Your task to perform on an android device: turn smart compose on in the gmail app Image 0: 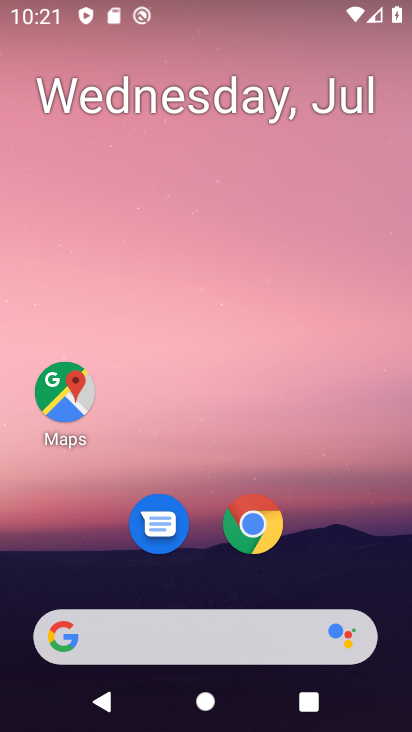
Step 0: drag from (175, 645) to (298, 66)
Your task to perform on an android device: turn smart compose on in the gmail app Image 1: 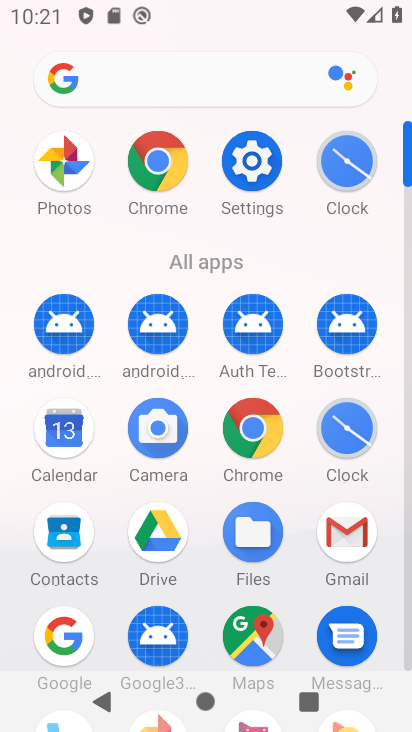
Step 1: click (346, 534)
Your task to perform on an android device: turn smart compose on in the gmail app Image 2: 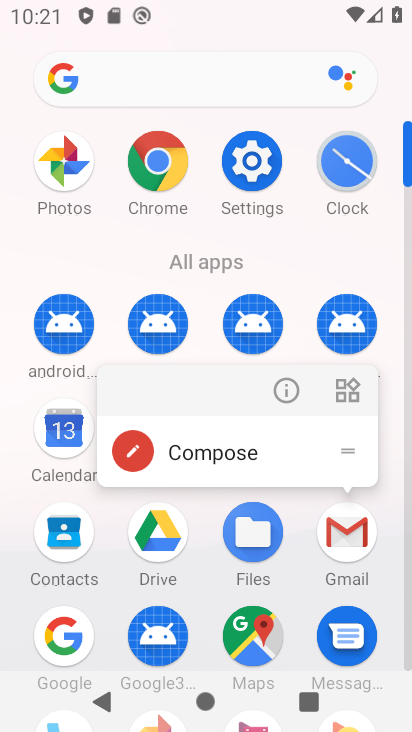
Step 2: click (346, 532)
Your task to perform on an android device: turn smart compose on in the gmail app Image 3: 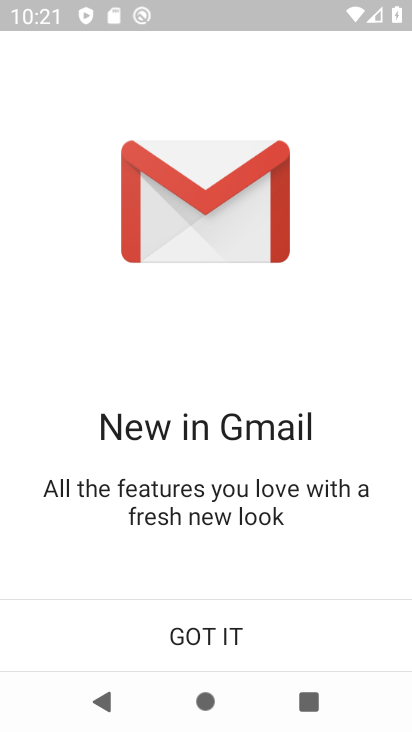
Step 3: click (224, 643)
Your task to perform on an android device: turn smart compose on in the gmail app Image 4: 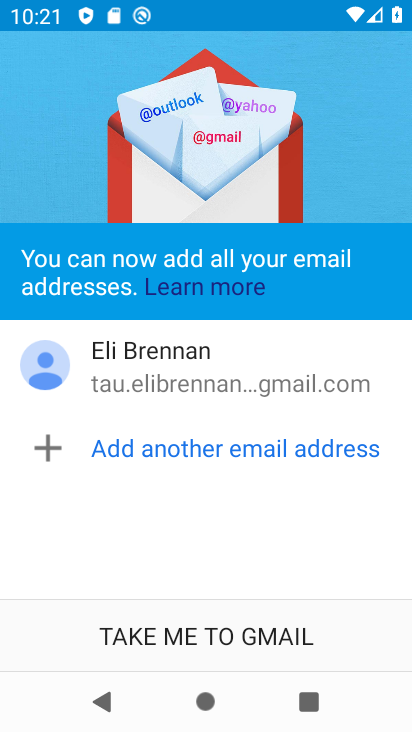
Step 4: click (224, 642)
Your task to perform on an android device: turn smart compose on in the gmail app Image 5: 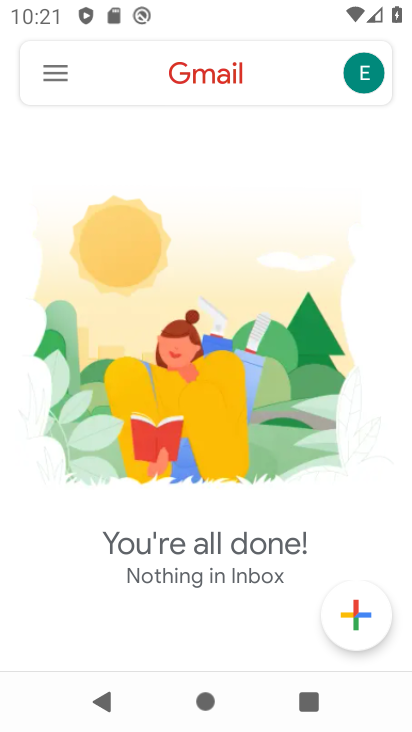
Step 5: click (56, 72)
Your task to perform on an android device: turn smart compose on in the gmail app Image 6: 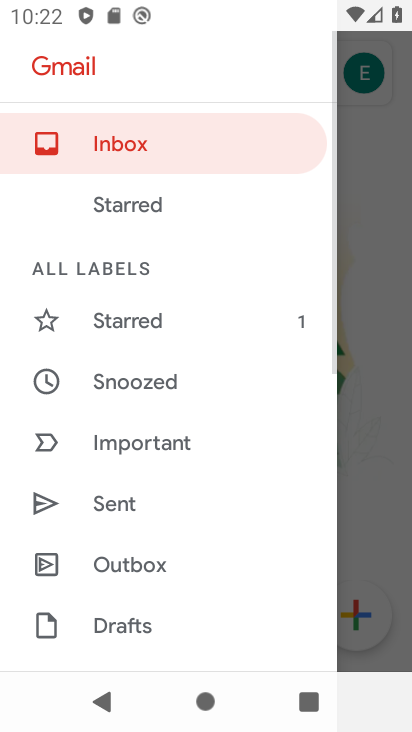
Step 6: drag from (168, 604) to (227, 170)
Your task to perform on an android device: turn smart compose on in the gmail app Image 7: 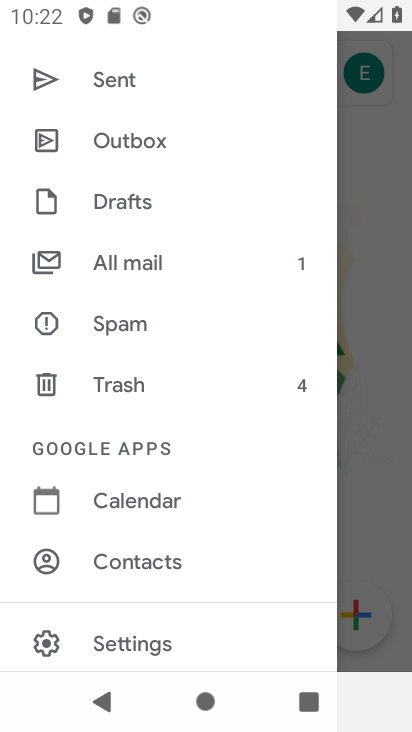
Step 7: click (126, 642)
Your task to perform on an android device: turn smart compose on in the gmail app Image 8: 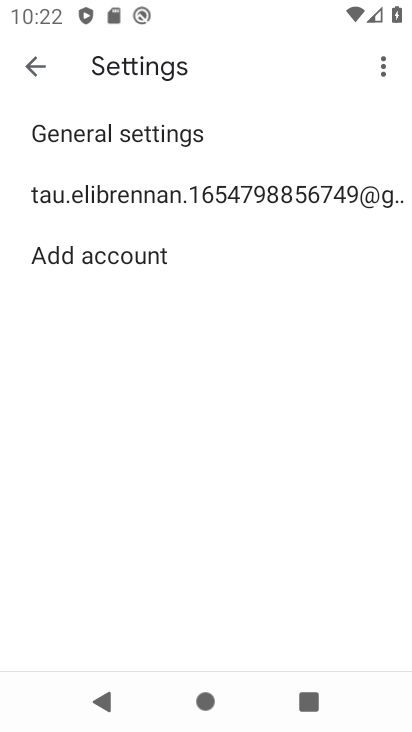
Step 8: click (211, 184)
Your task to perform on an android device: turn smart compose on in the gmail app Image 9: 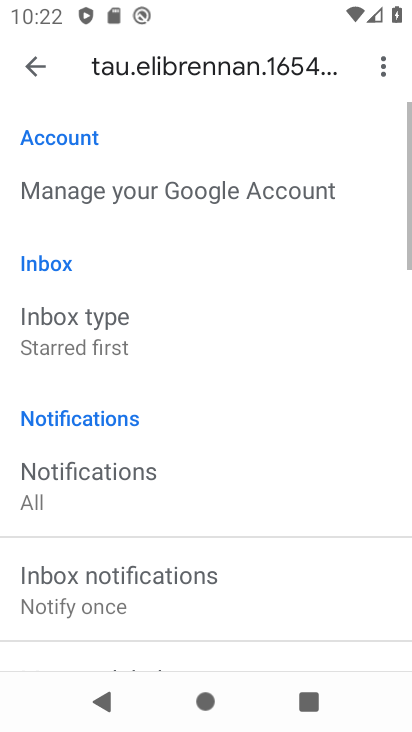
Step 9: task complete